Your task to perform on an android device: Open privacy settings Image 0: 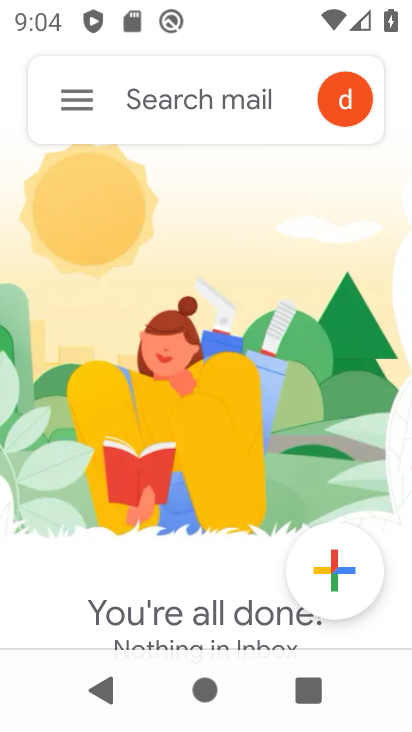
Step 0: press home button
Your task to perform on an android device: Open privacy settings Image 1: 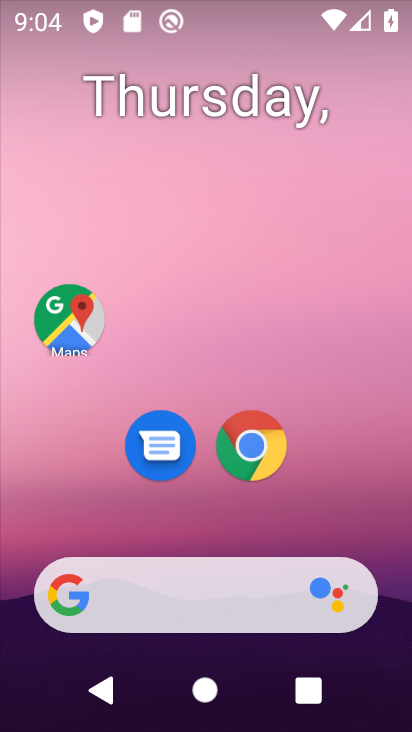
Step 1: drag from (196, 530) to (185, 67)
Your task to perform on an android device: Open privacy settings Image 2: 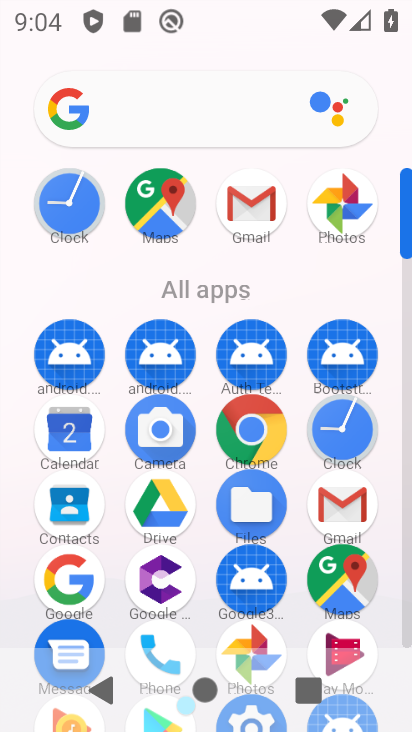
Step 2: drag from (188, 496) to (149, 157)
Your task to perform on an android device: Open privacy settings Image 3: 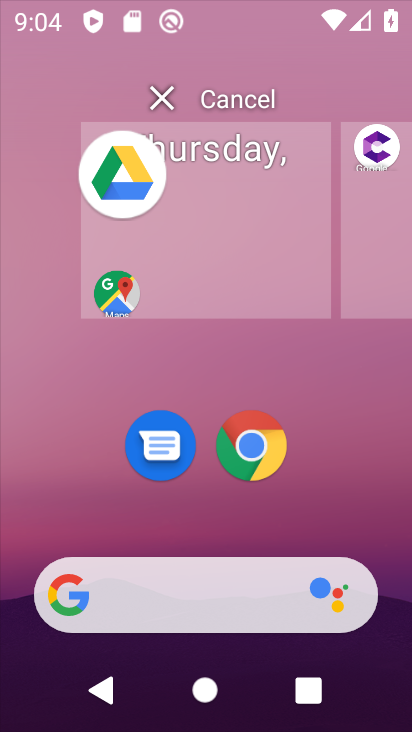
Step 3: drag from (215, 10) to (228, 501)
Your task to perform on an android device: Open privacy settings Image 4: 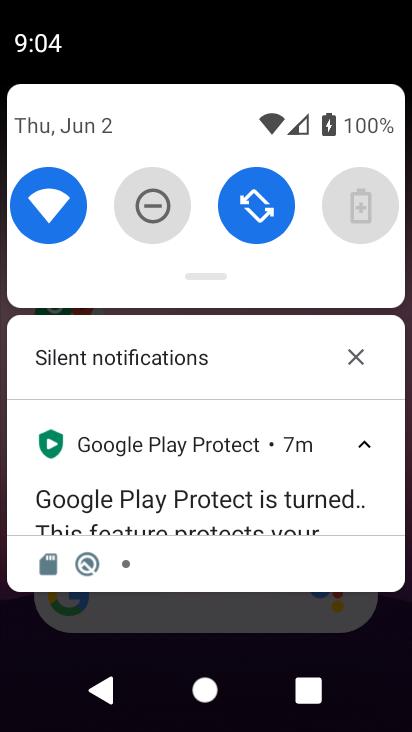
Step 4: click (213, 645)
Your task to perform on an android device: Open privacy settings Image 5: 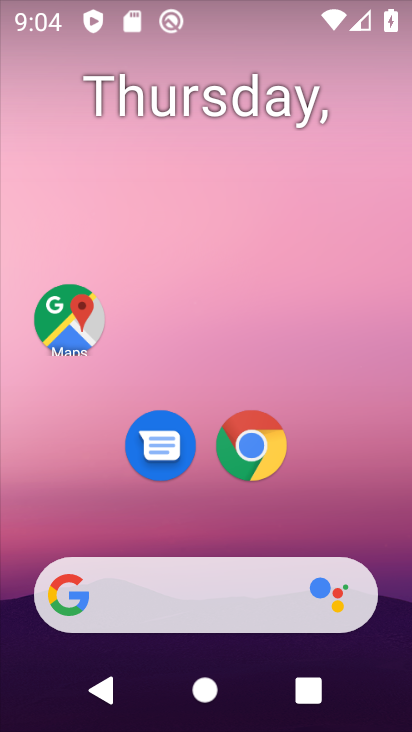
Step 5: drag from (217, 536) to (163, 138)
Your task to perform on an android device: Open privacy settings Image 6: 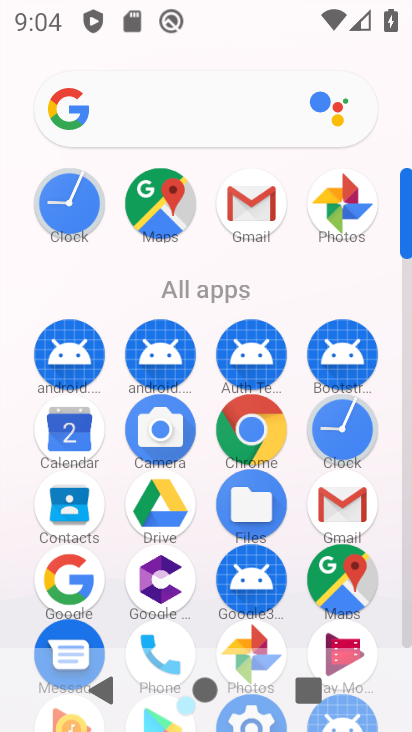
Step 6: drag from (207, 454) to (209, 182)
Your task to perform on an android device: Open privacy settings Image 7: 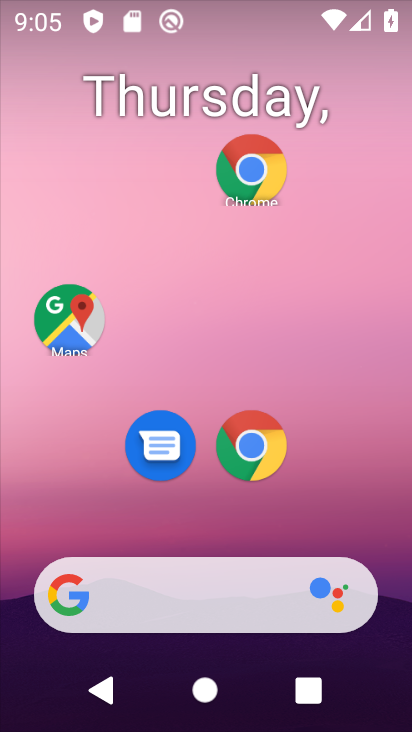
Step 7: drag from (229, 536) to (165, 126)
Your task to perform on an android device: Open privacy settings Image 8: 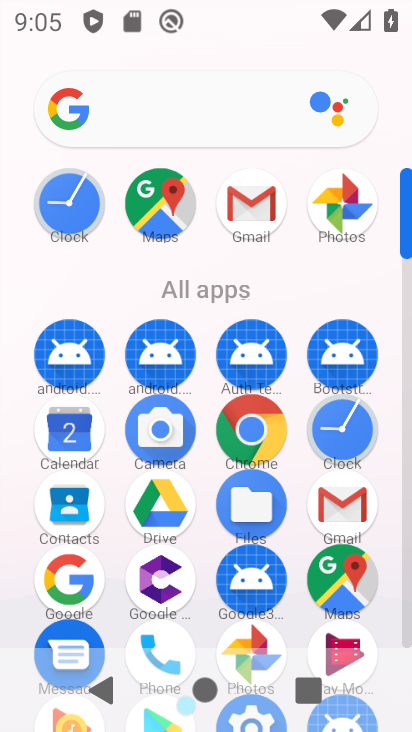
Step 8: drag from (163, 556) to (148, 162)
Your task to perform on an android device: Open privacy settings Image 9: 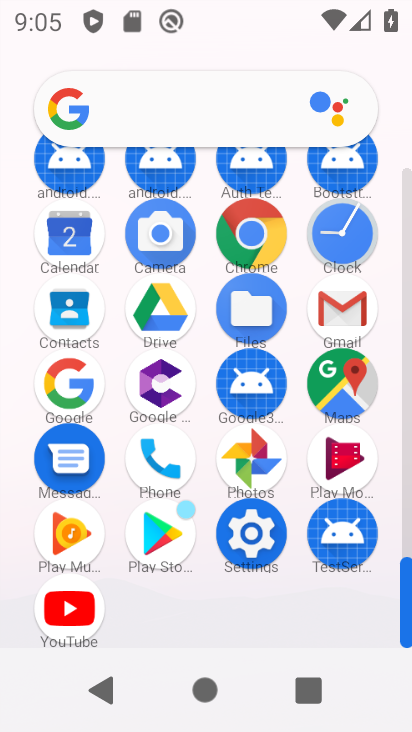
Step 9: click (238, 547)
Your task to perform on an android device: Open privacy settings Image 10: 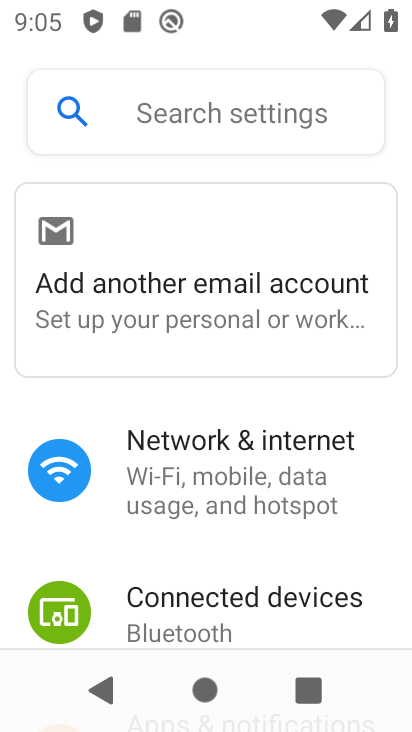
Step 10: drag from (238, 547) to (122, 97)
Your task to perform on an android device: Open privacy settings Image 11: 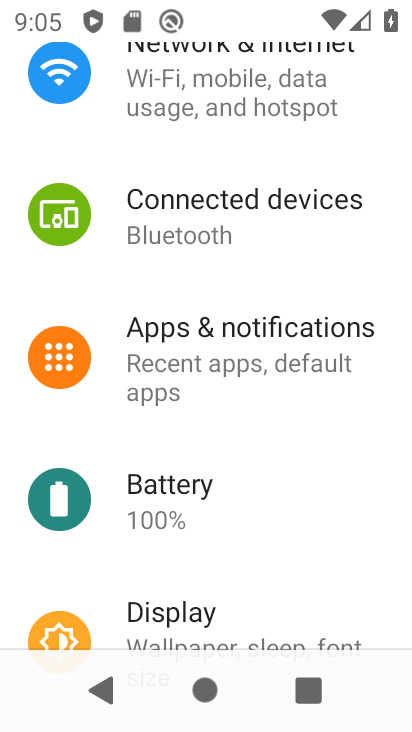
Step 11: drag from (193, 550) to (212, 168)
Your task to perform on an android device: Open privacy settings Image 12: 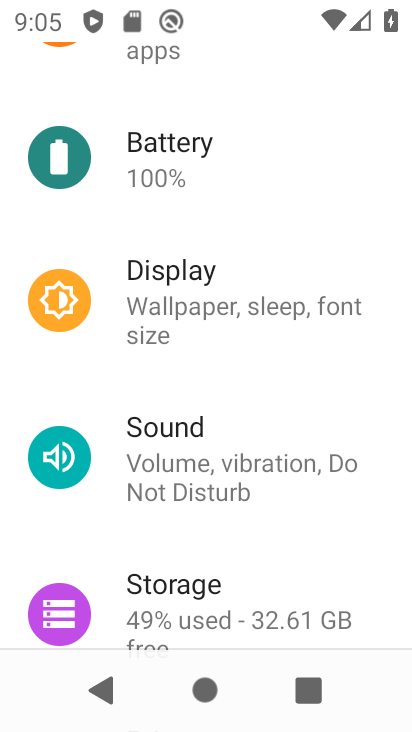
Step 12: drag from (170, 560) to (127, 171)
Your task to perform on an android device: Open privacy settings Image 13: 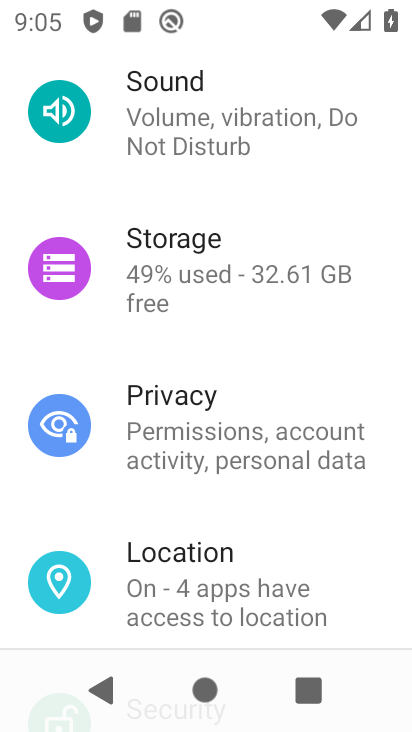
Step 13: click (155, 464)
Your task to perform on an android device: Open privacy settings Image 14: 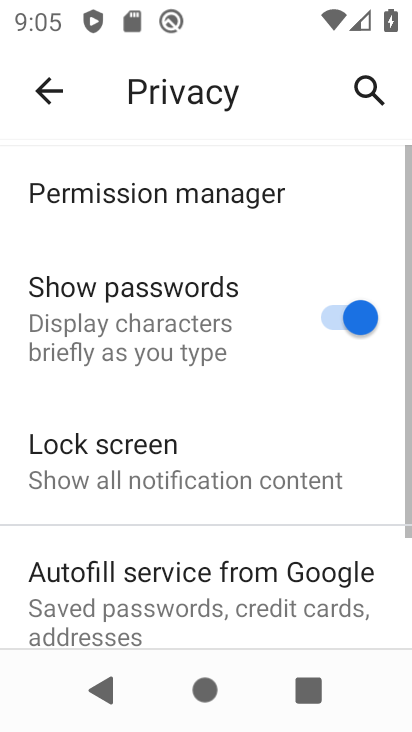
Step 14: task complete